Your task to perform on an android device: Open the Play Movies app and select the watchlist tab. Image 0: 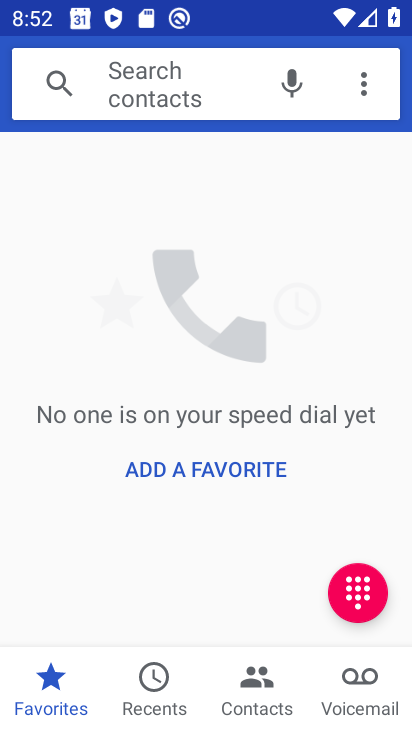
Step 0: drag from (383, 639) to (220, 80)
Your task to perform on an android device: Open the Play Movies app and select the watchlist tab. Image 1: 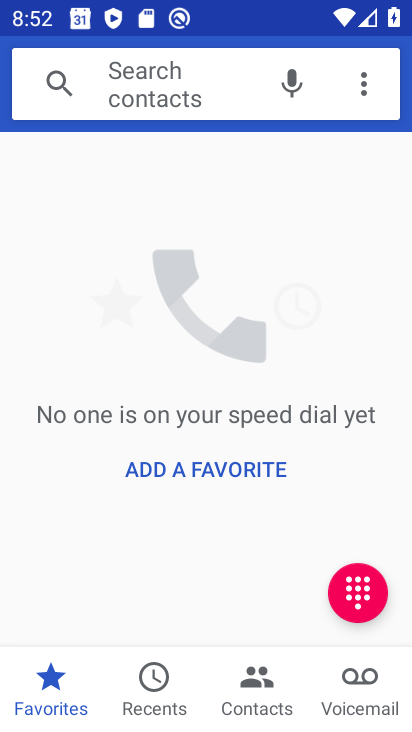
Step 1: press back button
Your task to perform on an android device: Open the Play Movies app and select the watchlist tab. Image 2: 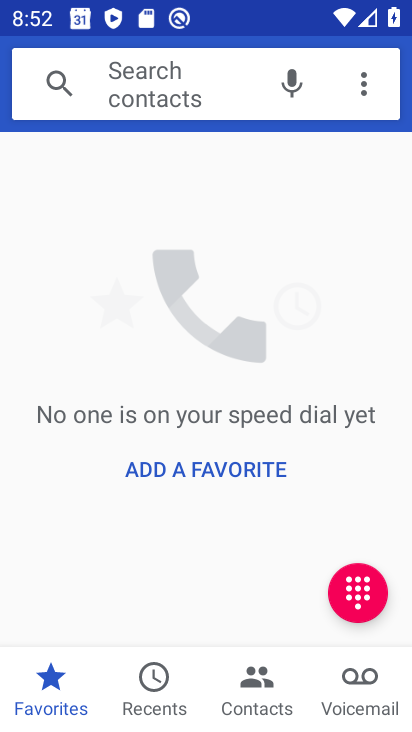
Step 2: press back button
Your task to perform on an android device: Open the Play Movies app and select the watchlist tab. Image 3: 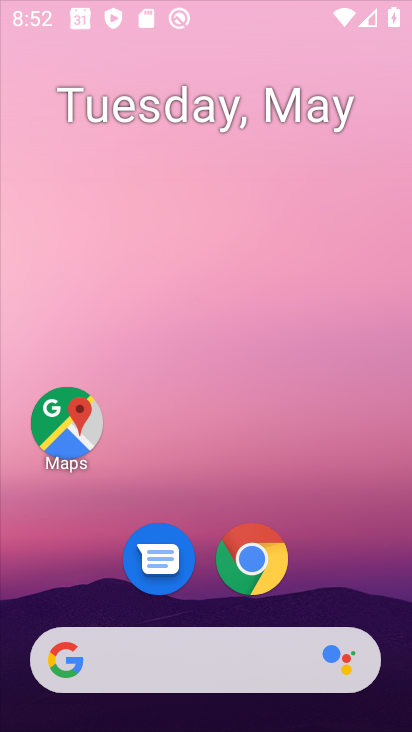
Step 3: press back button
Your task to perform on an android device: Open the Play Movies app and select the watchlist tab. Image 4: 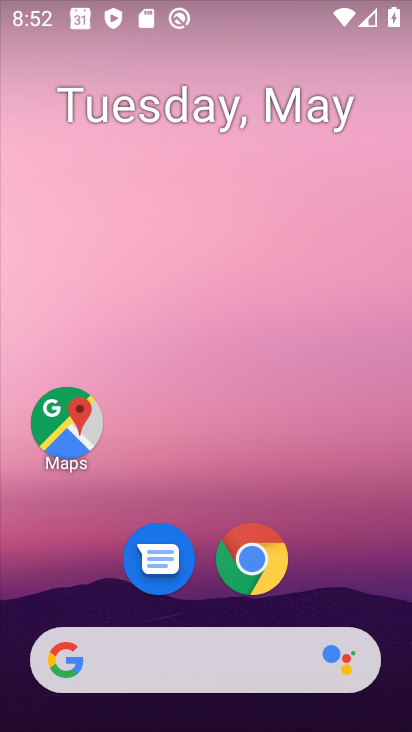
Step 4: drag from (287, 469) to (135, 1)
Your task to perform on an android device: Open the Play Movies app and select the watchlist tab. Image 5: 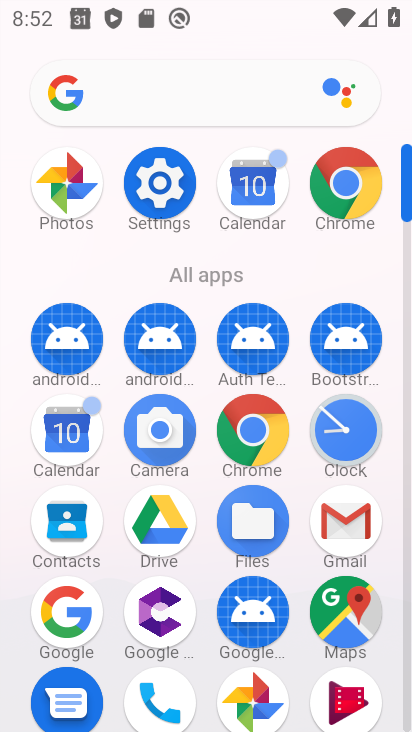
Step 5: drag from (293, 497) to (274, 97)
Your task to perform on an android device: Open the Play Movies app and select the watchlist tab. Image 6: 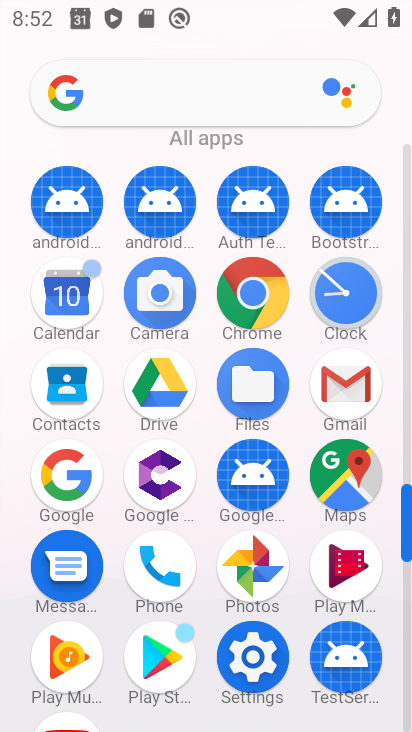
Step 6: drag from (283, 442) to (268, 29)
Your task to perform on an android device: Open the Play Movies app and select the watchlist tab. Image 7: 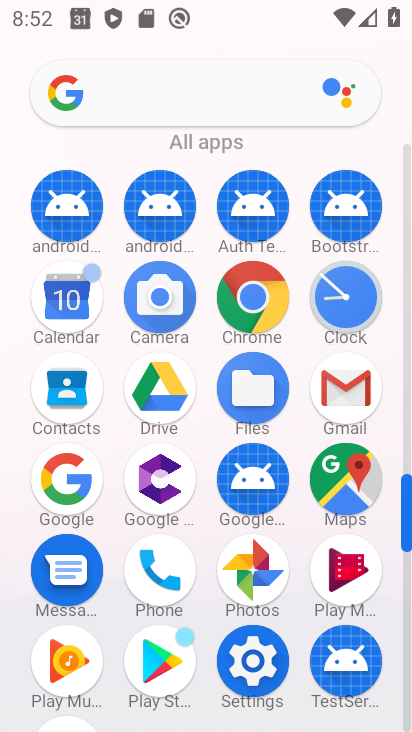
Step 7: drag from (315, 525) to (248, 103)
Your task to perform on an android device: Open the Play Movies app and select the watchlist tab. Image 8: 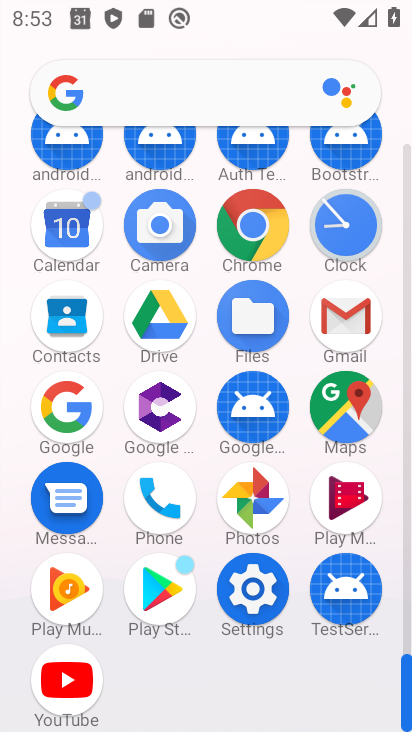
Step 8: click (74, 683)
Your task to perform on an android device: Open the Play Movies app and select the watchlist tab. Image 9: 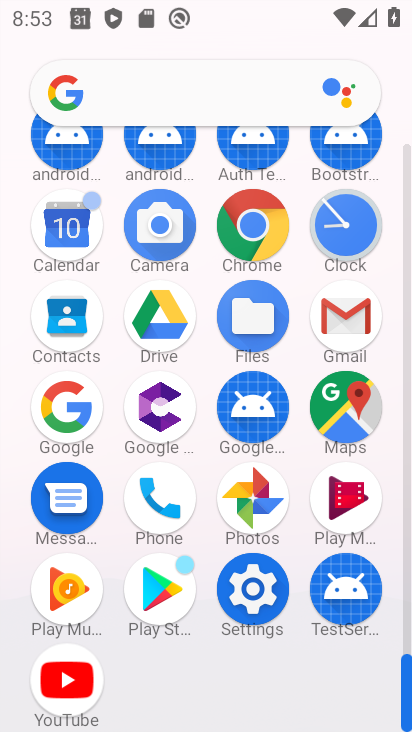
Step 9: click (74, 683)
Your task to perform on an android device: Open the Play Movies app and select the watchlist tab. Image 10: 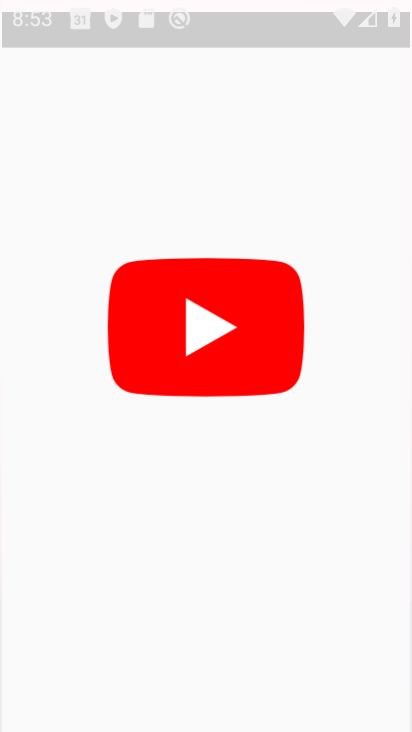
Step 10: click (72, 684)
Your task to perform on an android device: Open the Play Movies app and select the watchlist tab. Image 11: 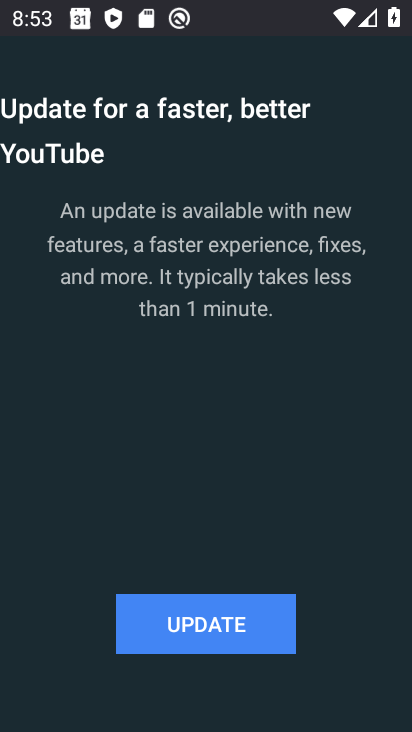
Step 11: click (220, 623)
Your task to perform on an android device: Open the Play Movies app and select the watchlist tab. Image 12: 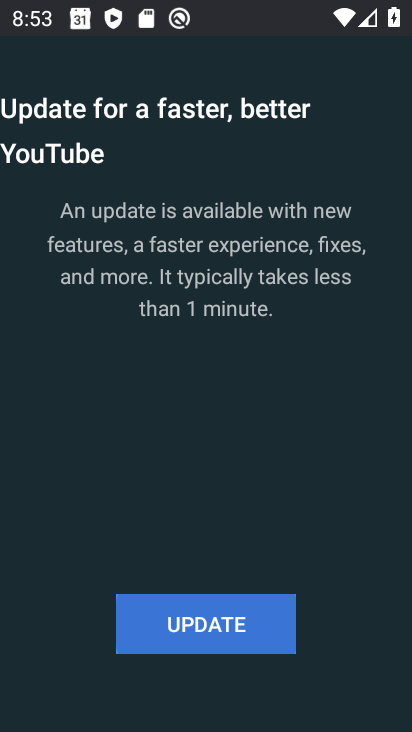
Step 12: click (219, 624)
Your task to perform on an android device: Open the Play Movies app and select the watchlist tab. Image 13: 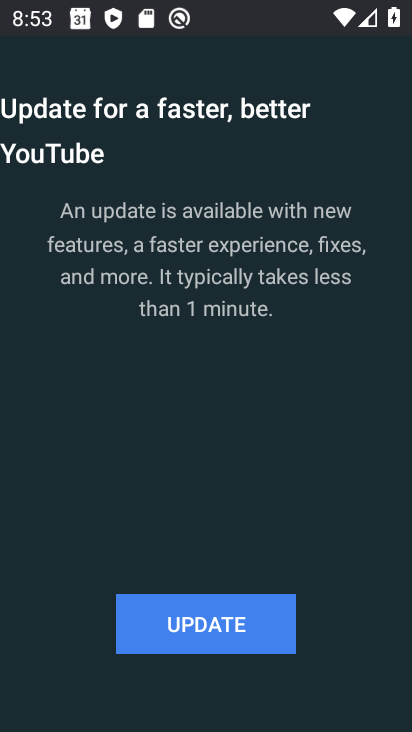
Step 13: click (219, 629)
Your task to perform on an android device: Open the Play Movies app and select the watchlist tab. Image 14: 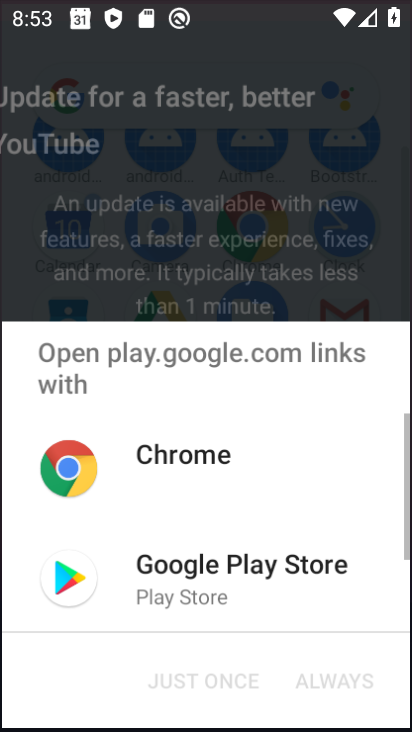
Step 14: click (223, 636)
Your task to perform on an android device: Open the Play Movies app and select the watchlist tab. Image 15: 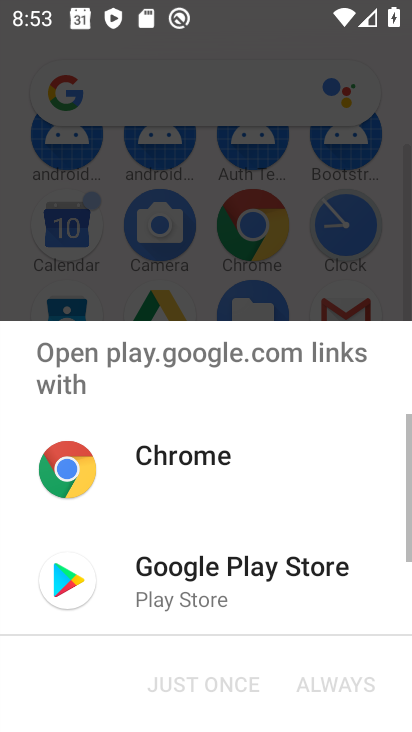
Step 15: click (224, 616)
Your task to perform on an android device: Open the Play Movies app and select the watchlist tab. Image 16: 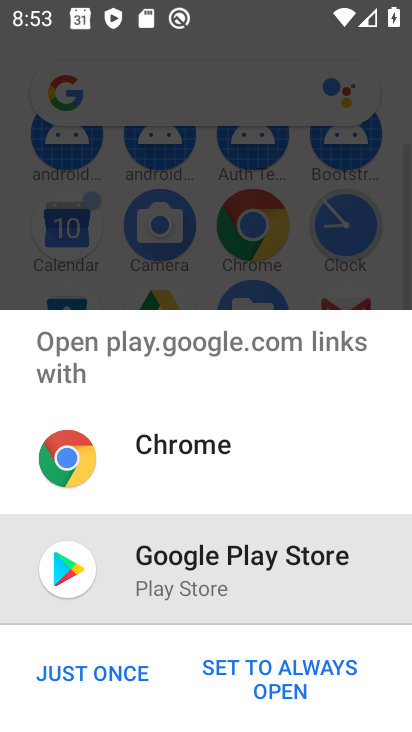
Step 16: click (184, 576)
Your task to perform on an android device: Open the Play Movies app and select the watchlist tab. Image 17: 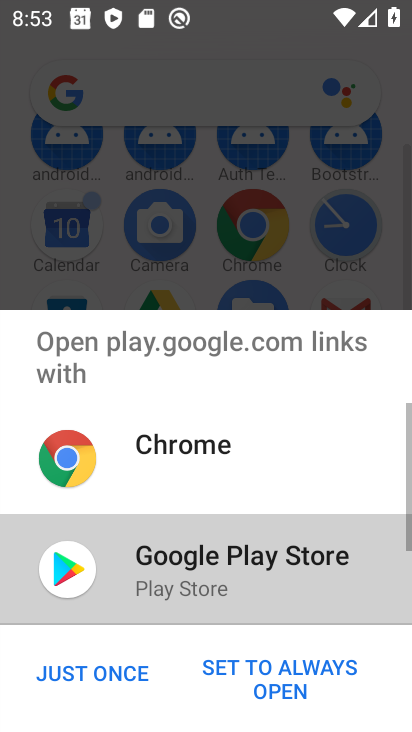
Step 17: click (202, 558)
Your task to perform on an android device: Open the Play Movies app and select the watchlist tab. Image 18: 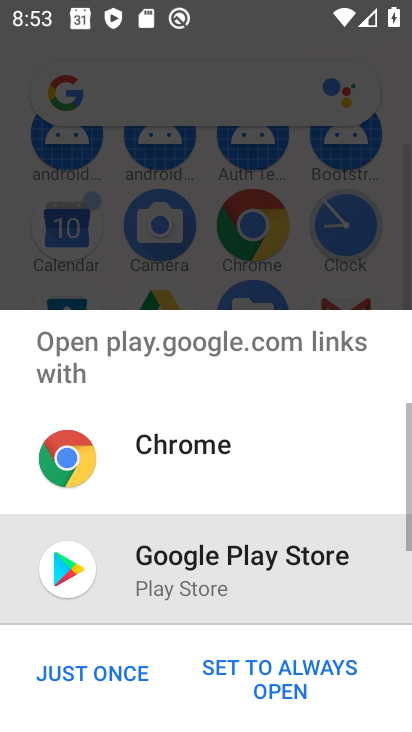
Step 18: click (206, 553)
Your task to perform on an android device: Open the Play Movies app and select the watchlist tab. Image 19: 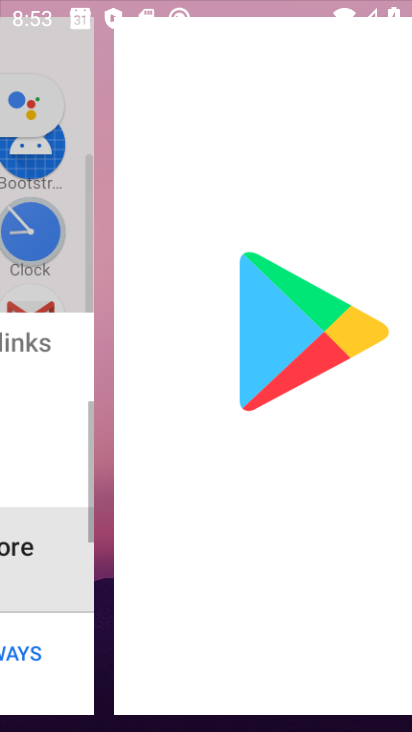
Step 19: click (209, 548)
Your task to perform on an android device: Open the Play Movies app and select the watchlist tab. Image 20: 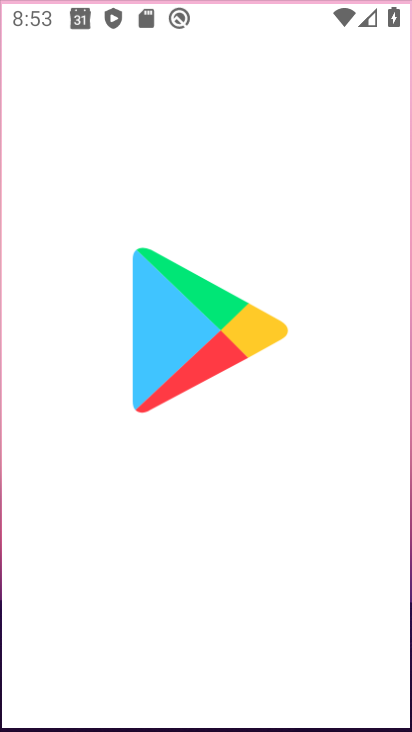
Step 20: click (196, 536)
Your task to perform on an android device: Open the Play Movies app and select the watchlist tab. Image 21: 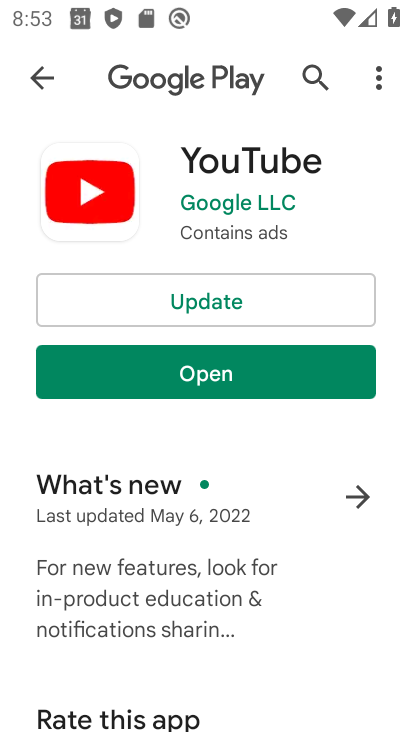
Step 21: click (213, 380)
Your task to perform on an android device: Open the Play Movies app and select the watchlist tab. Image 22: 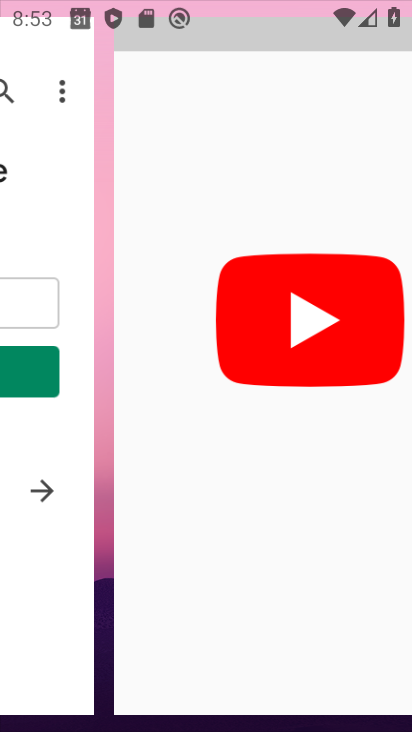
Step 22: click (212, 381)
Your task to perform on an android device: Open the Play Movies app and select the watchlist tab. Image 23: 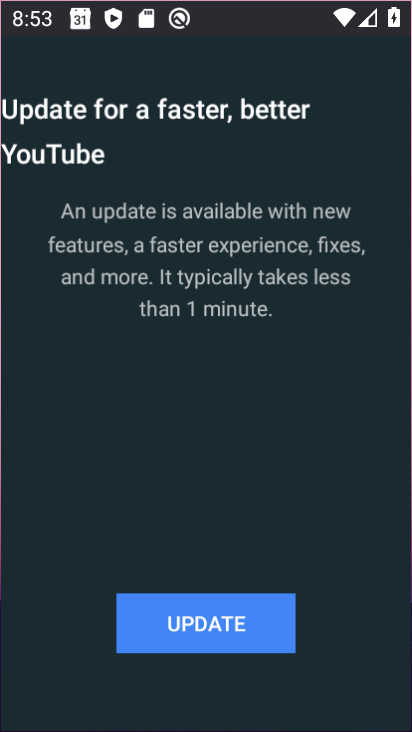
Step 23: click (212, 382)
Your task to perform on an android device: Open the Play Movies app and select the watchlist tab. Image 24: 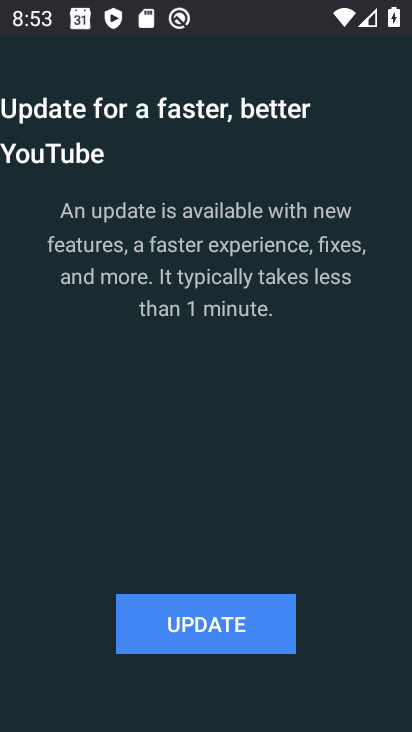
Step 24: click (212, 382)
Your task to perform on an android device: Open the Play Movies app and select the watchlist tab. Image 25: 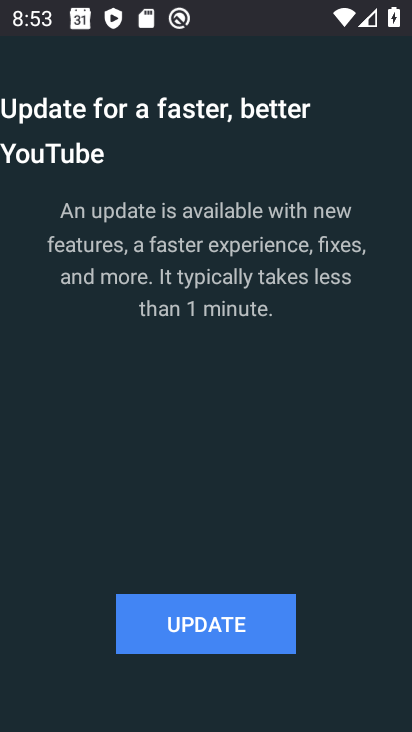
Step 25: click (203, 610)
Your task to perform on an android device: Open the Play Movies app and select the watchlist tab. Image 26: 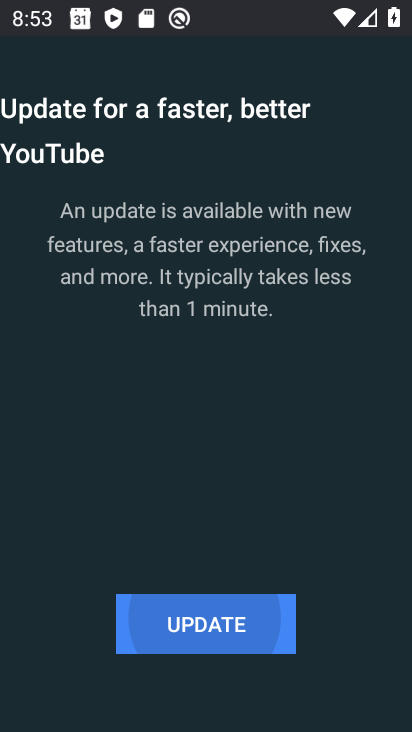
Step 26: click (202, 610)
Your task to perform on an android device: Open the Play Movies app and select the watchlist tab. Image 27: 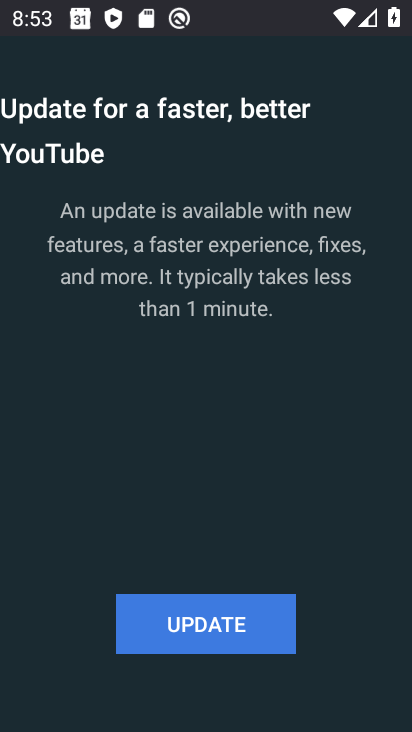
Step 27: click (202, 610)
Your task to perform on an android device: Open the Play Movies app and select the watchlist tab. Image 28: 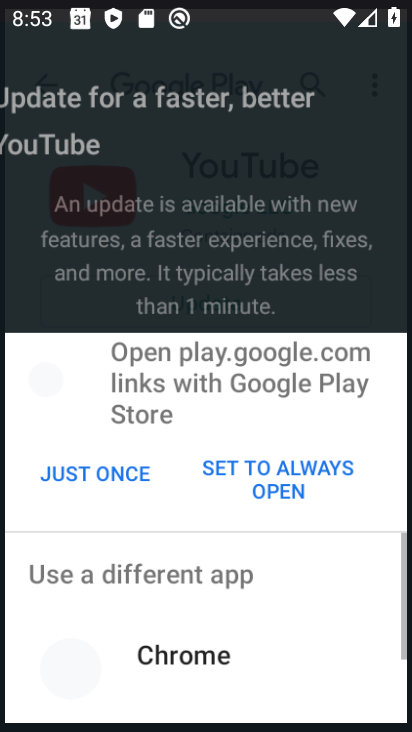
Step 28: click (202, 610)
Your task to perform on an android device: Open the Play Movies app and select the watchlist tab. Image 29: 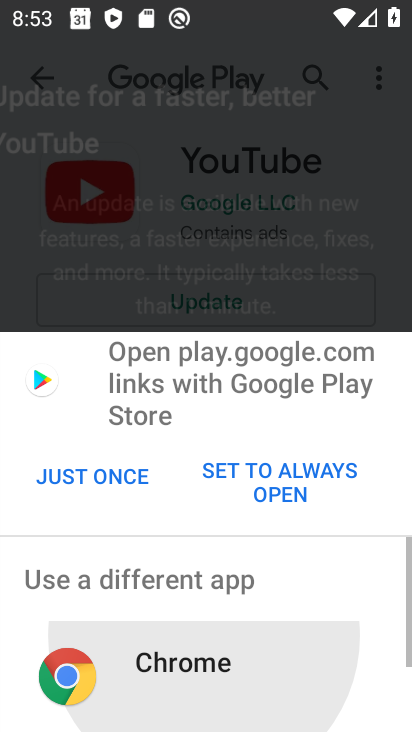
Step 29: click (202, 610)
Your task to perform on an android device: Open the Play Movies app and select the watchlist tab. Image 30: 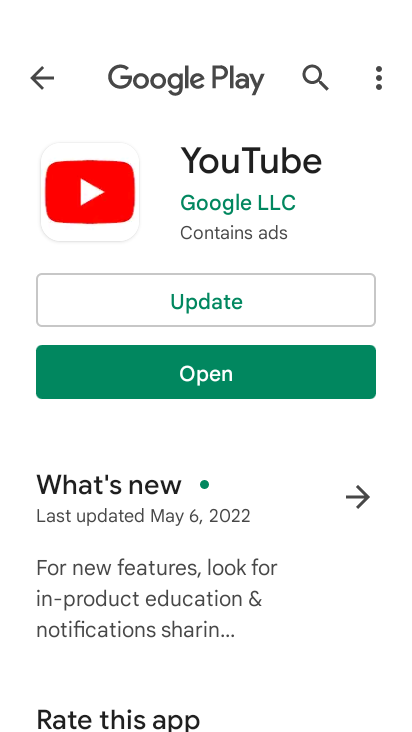
Step 30: click (202, 610)
Your task to perform on an android device: Open the Play Movies app and select the watchlist tab. Image 31: 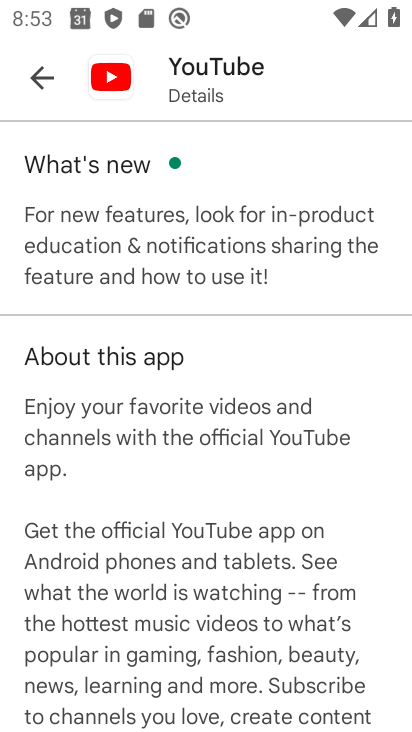
Step 31: click (37, 76)
Your task to perform on an android device: Open the Play Movies app and select the watchlist tab. Image 32: 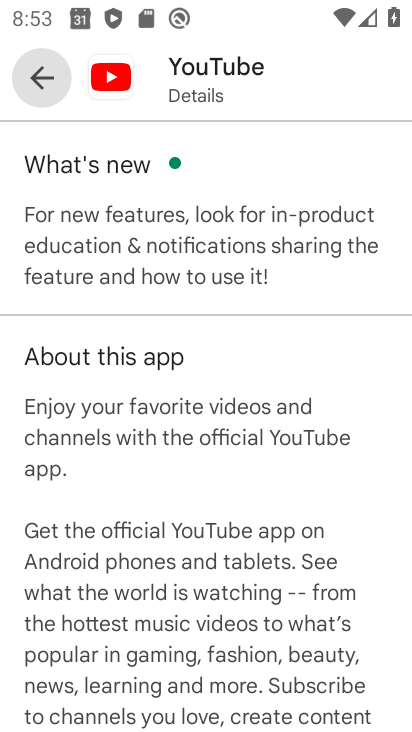
Step 32: click (37, 76)
Your task to perform on an android device: Open the Play Movies app and select the watchlist tab. Image 33: 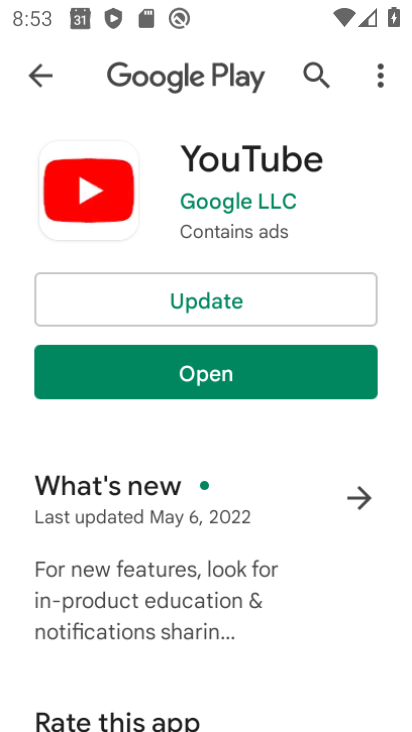
Step 33: click (37, 76)
Your task to perform on an android device: Open the Play Movies app and select the watchlist tab. Image 34: 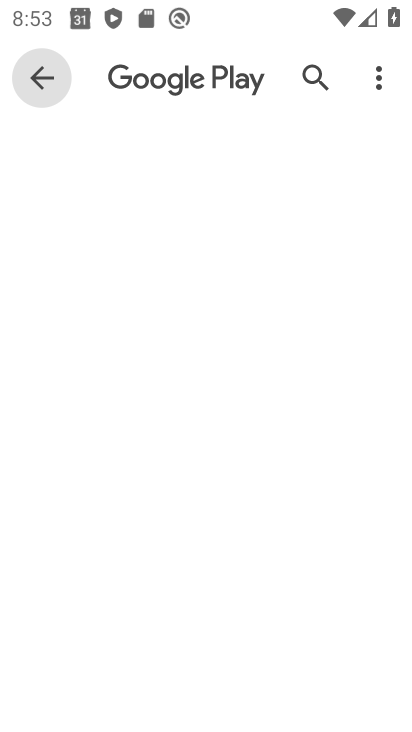
Step 34: click (37, 76)
Your task to perform on an android device: Open the Play Movies app and select the watchlist tab. Image 35: 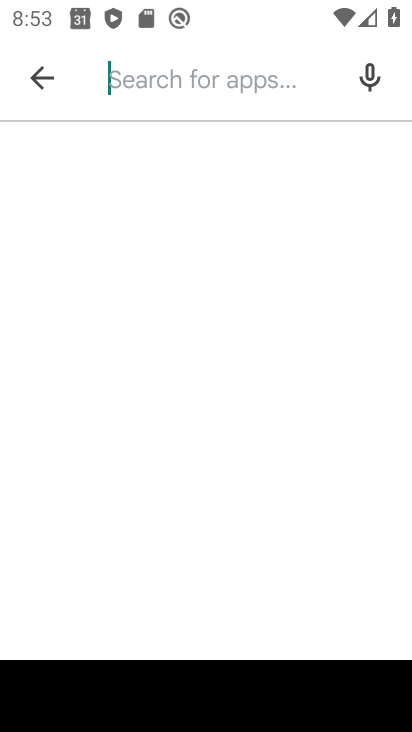
Step 35: press back button
Your task to perform on an android device: Open the Play Movies app and select the watchlist tab. Image 36: 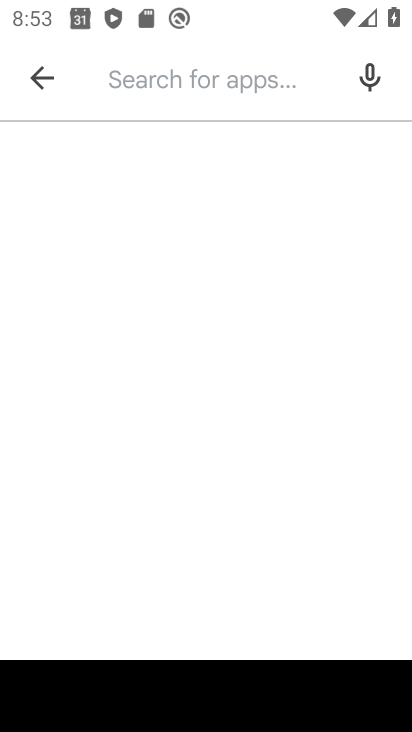
Step 36: press back button
Your task to perform on an android device: Open the Play Movies app and select the watchlist tab. Image 37: 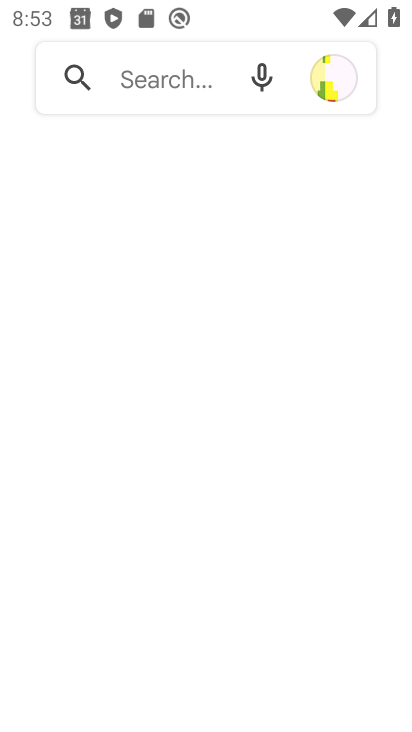
Step 37: press back button
Your task to perform on an android device: Open the Play Movies app and select the watchlist tab. Image 38: 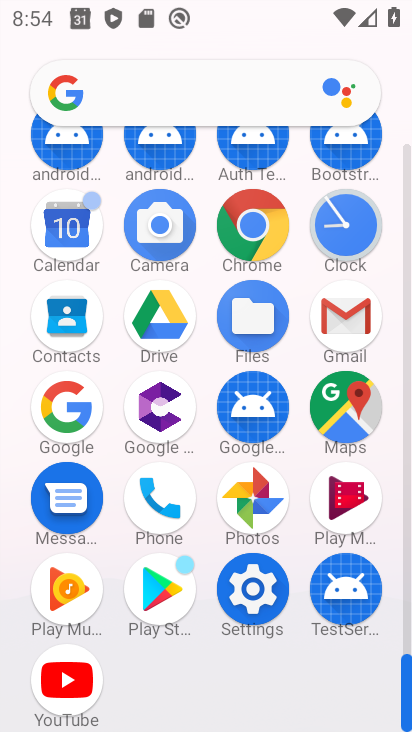
Step 38: click (345, 510)
Your task to perform on an android device: Open the Play Movies app and select the watchlist tab. Image 39: 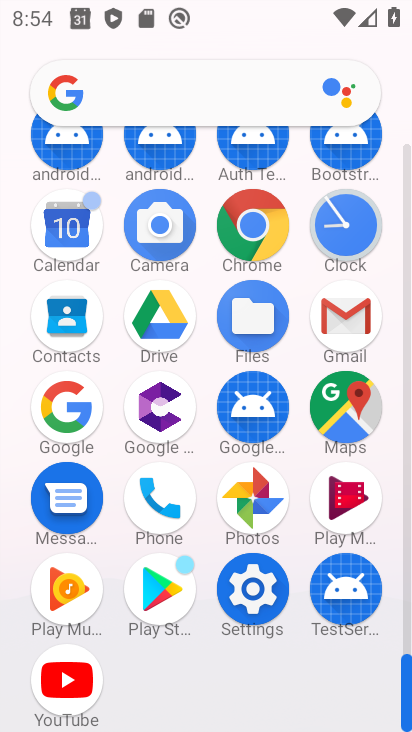
Step 39: click (345, 510)
Your task to perform on an android device: Open the Play Movies app and select the watchlist tab. Image 40: 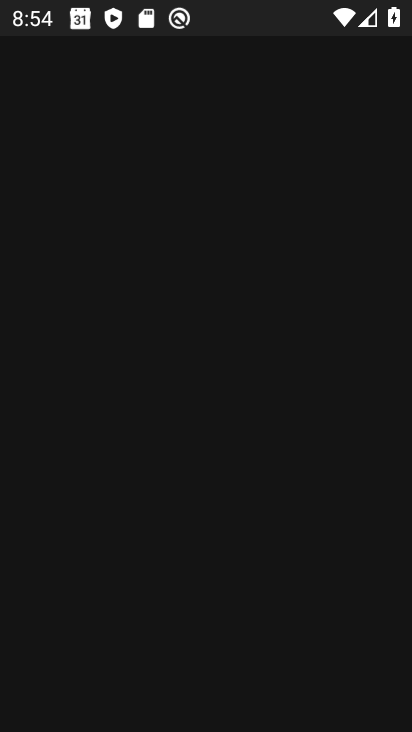
Step 40: click (345, 507)
Your task to perform on an android device: Open the Play Movies app and select the watchlist tab. Image 41: 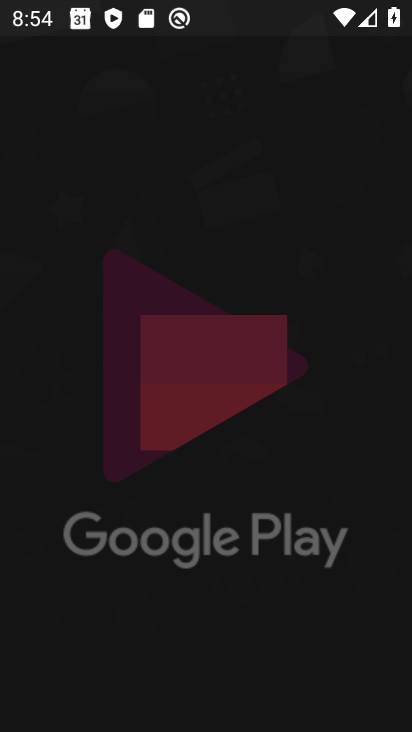
Step 41: click (355, 503)
Your task to perform on an android device: Open the Play Movies app and select the watchlist tab. Image 42: 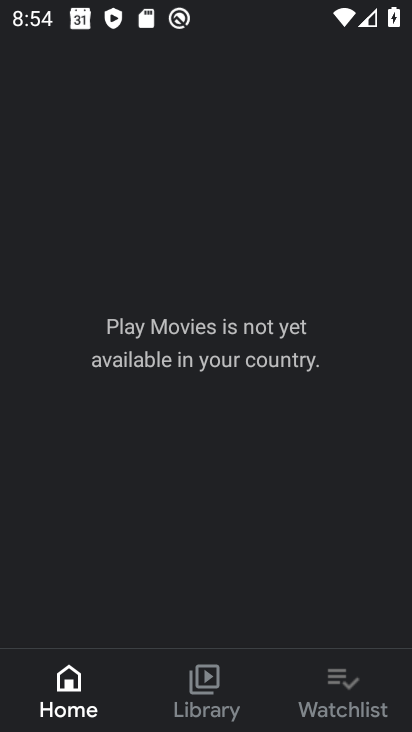
Step 42: click (341, 714)
Your task to perform on an android device: Open the Play Movies app and select the watchlist tab. Image 43: 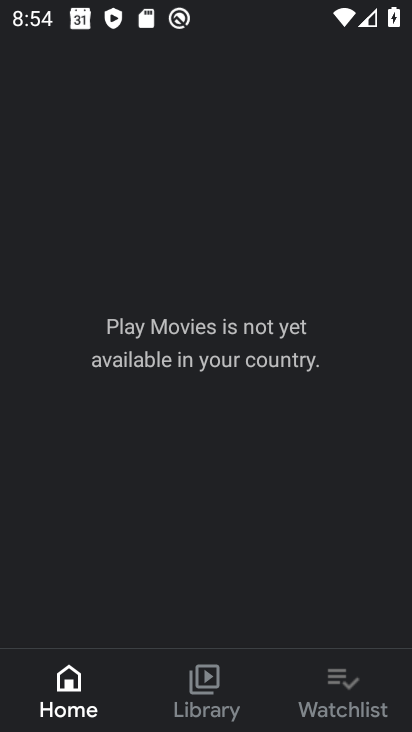
Step 43: click (340, 713)
Your task to perform on an android device: Open the Play Movies app and select the watchlist tab. Image 44: 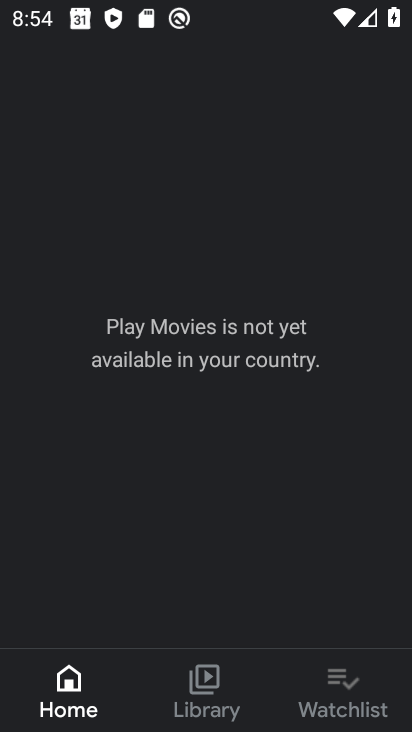
Step 44: click (340, 713)
Your task to perform on an android device: Open the Play Movies app and select the watchlist tab. Image 45: 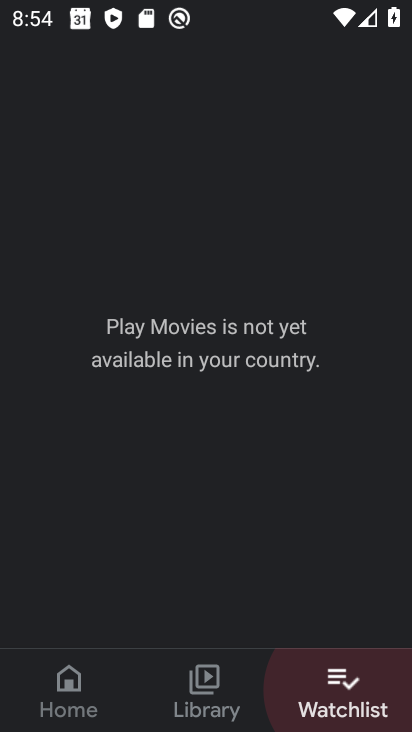
Step 45: click (340, 713)
Your task to perform on an android device: Open the Play Movies app and select the watchlist tab. Image 46: 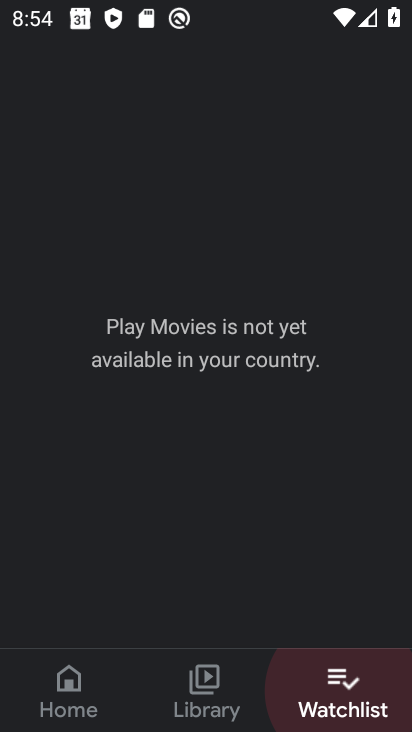
Step 46: click (339, 709)
Your task to perform on an android device: Open the Play Movies app and select the watchlist tab. Image 47: 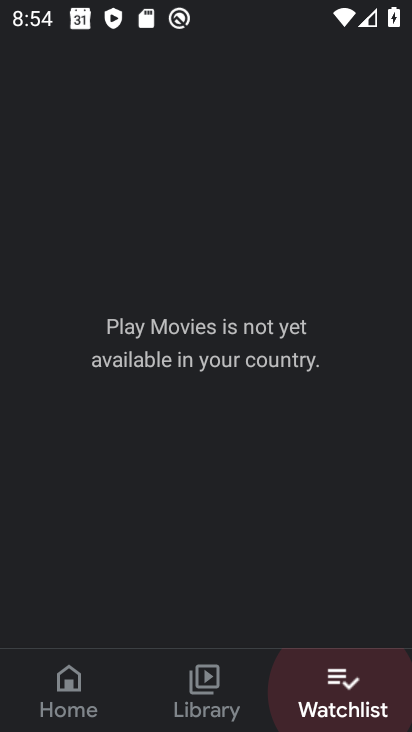
Step 47: click (341, 706)
Your task to perform on an android device: Open the Play Movies app and select the watchlist tab. Image 48: 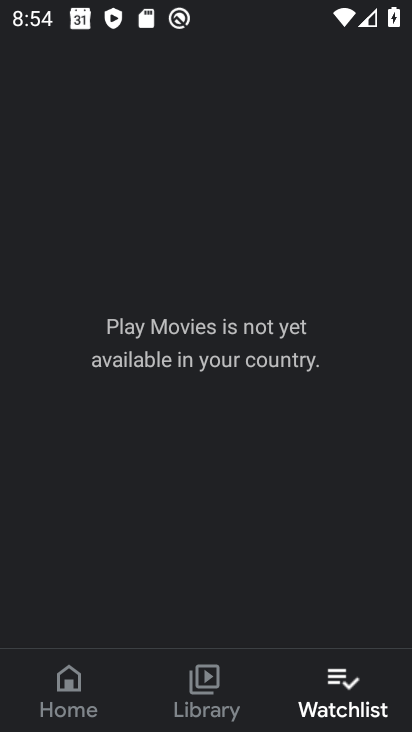
Step 48: task complete